Your task to perform on an android device: View the shopping cart on newegg. Add "macbook pro" to the cart on newegg, then select checkout. Image 0: 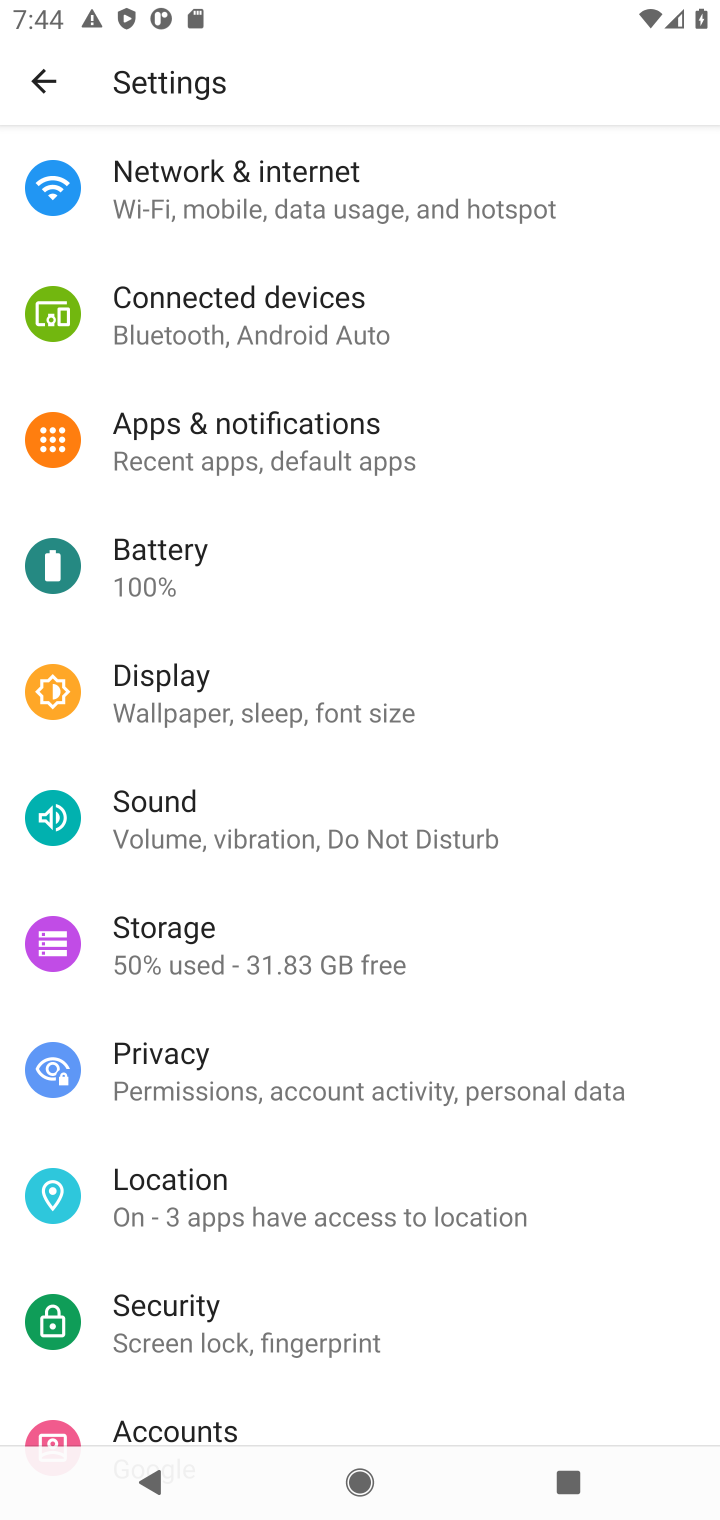
Step 0: press home button
Your task to perform on an android device: View the shopping cart on newegg. Add "macbook pro" to the cart on newegg, then select checkout. Image 1: 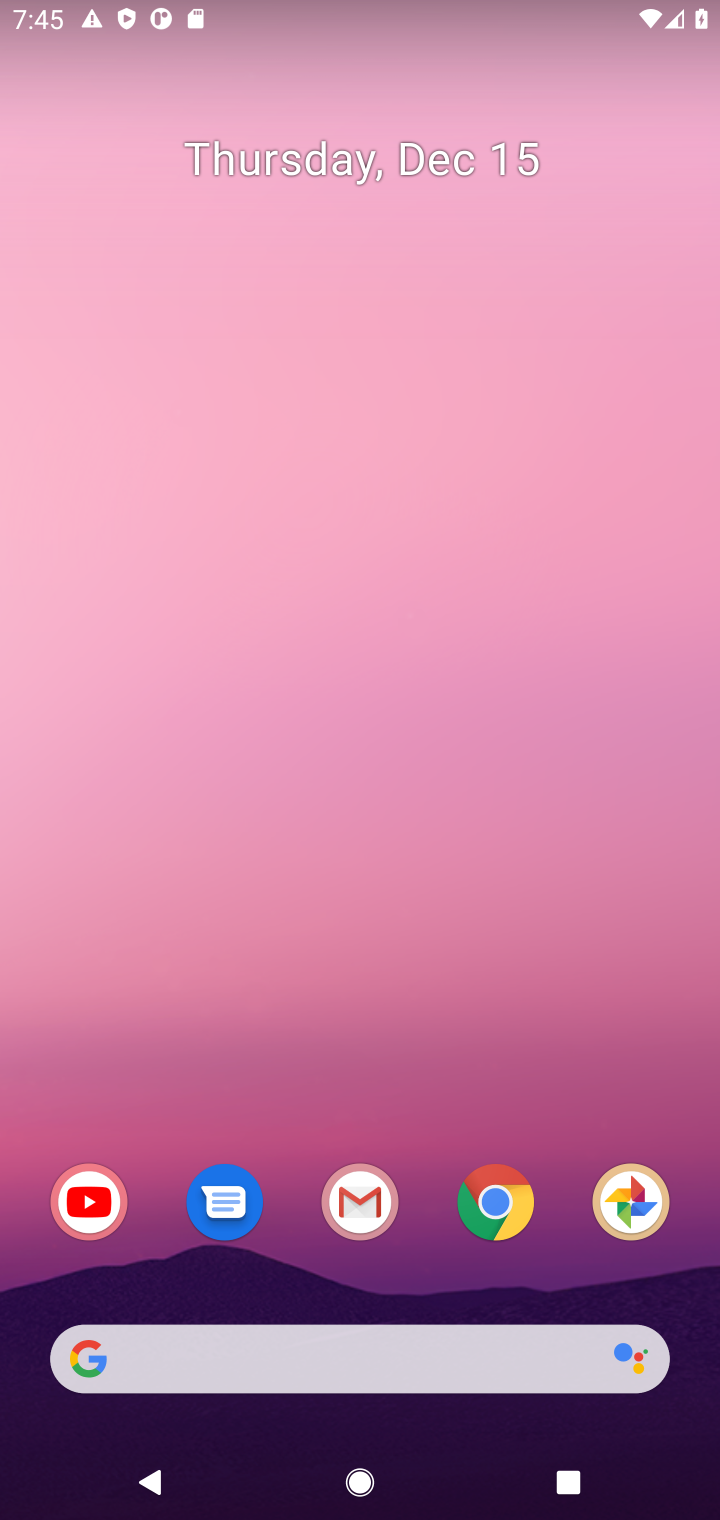
Step 1: click (514, 1212)
Your task to perform on an android device: View the shopping cart on newegg. Add "macbook pro" to the cart on newegg, then select checkout. Image 2: 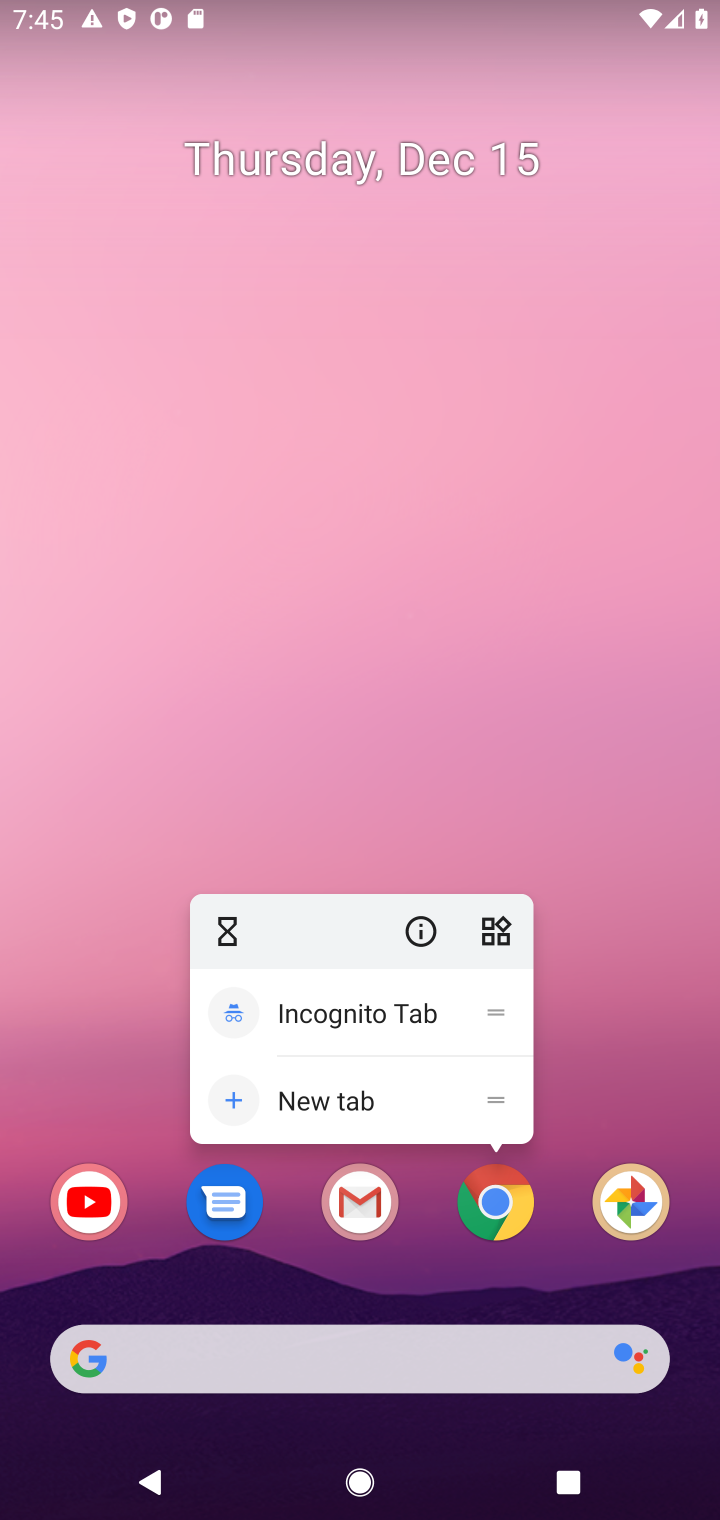
Step 2: click (497, 1200)
Your task to perform on an android device: View the shopping cart on newegg. Add "macbook pro" to the cart on newegg, then select checkout. Image 3: 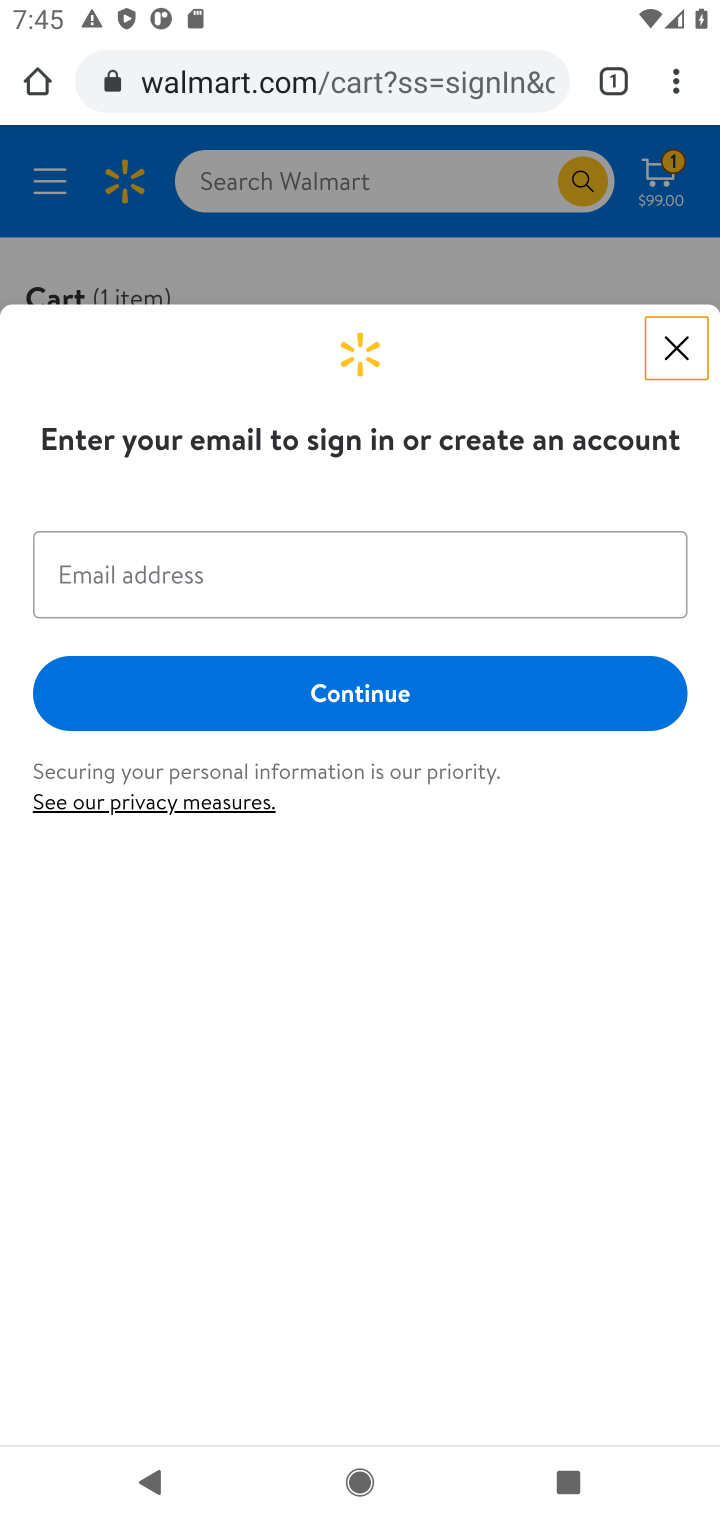
Step 3: click (312, 76)
Your task to perform on an android device: View the shopping cart on newegg. Add "macbook pro" to the cart on newegg, then select checkout. Image 4: 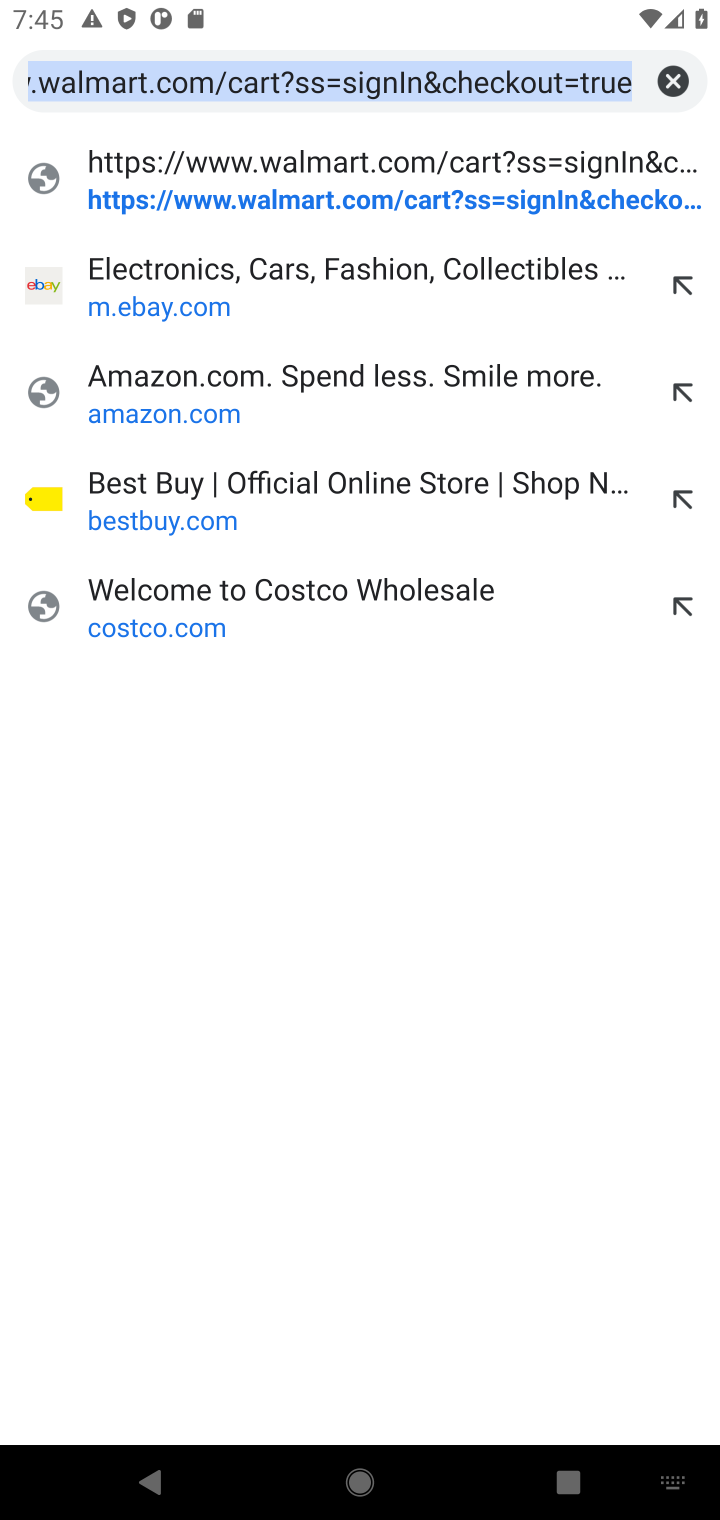
Step 4: type "newegg.com"
Your task to perform on an android device: View the shopping cart on newegg. Add "macbook pro" to the cart on newegg, then select checkout. Image 5: 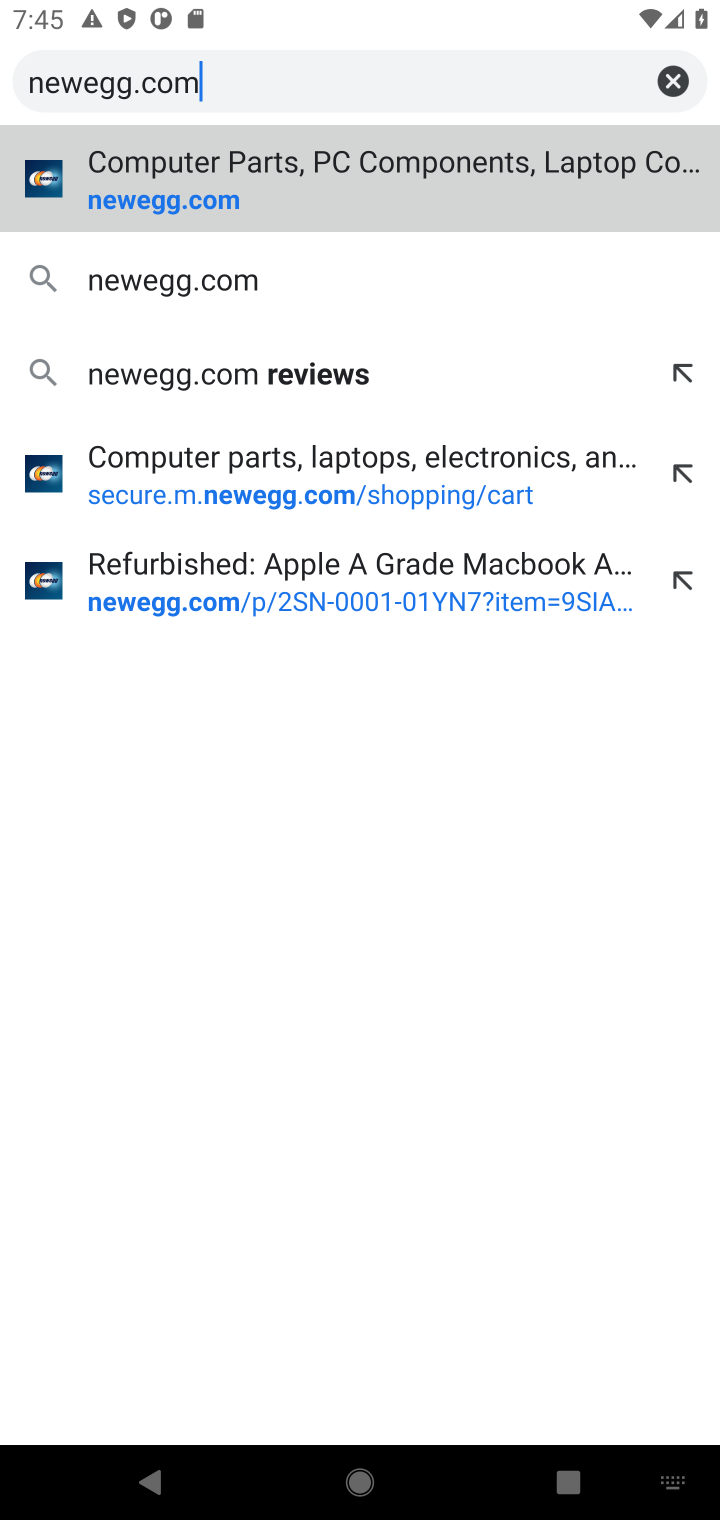
Step 5: click (207, 214)
Your task to perform on an android device: View the shopping cart on newegg. Add "macbook pro" to the cart on newegg, then select checkout. Image 6: 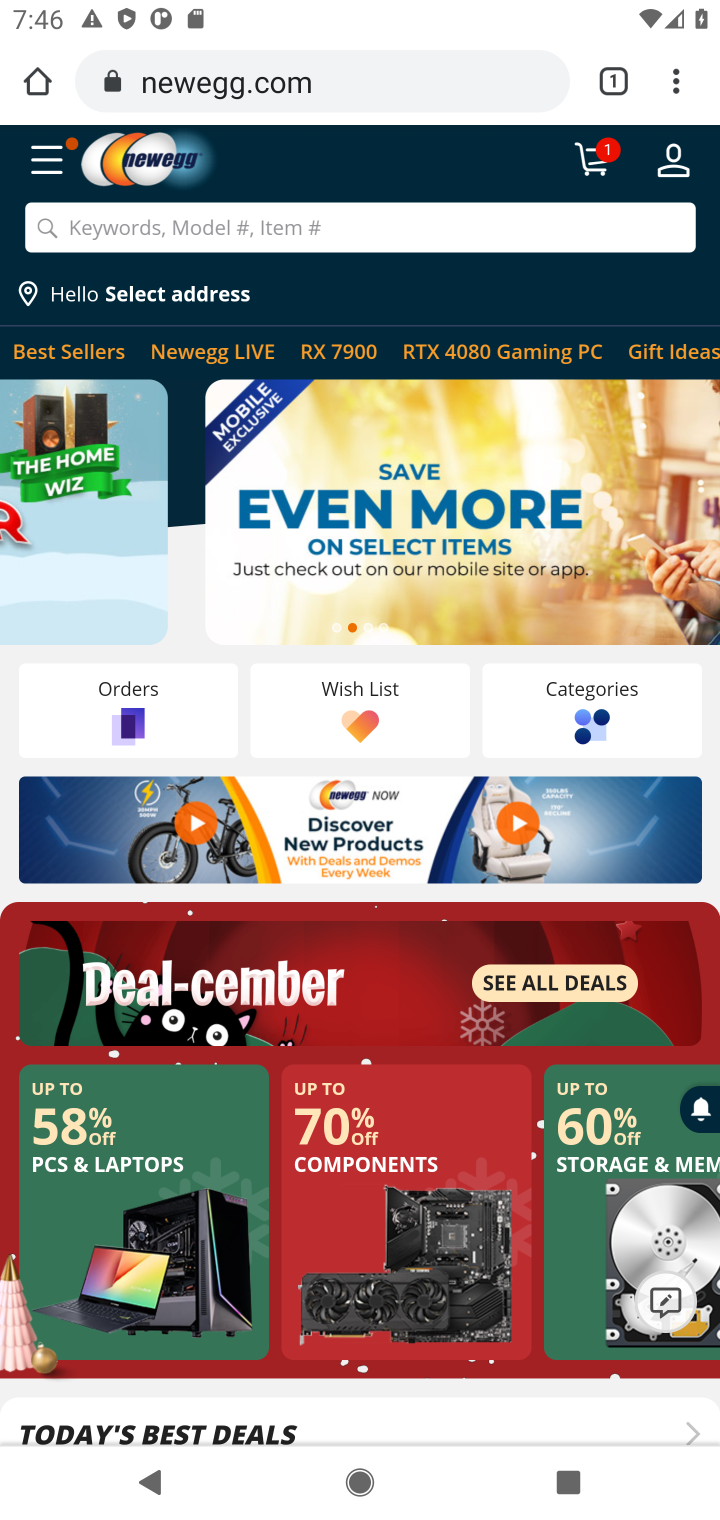
Step 6: click (587, 151)
Your task to perform on an android device: View the shopping cart on newegg. Add "macbook pro" to the cart on newegg, then select checkout. Image 7: 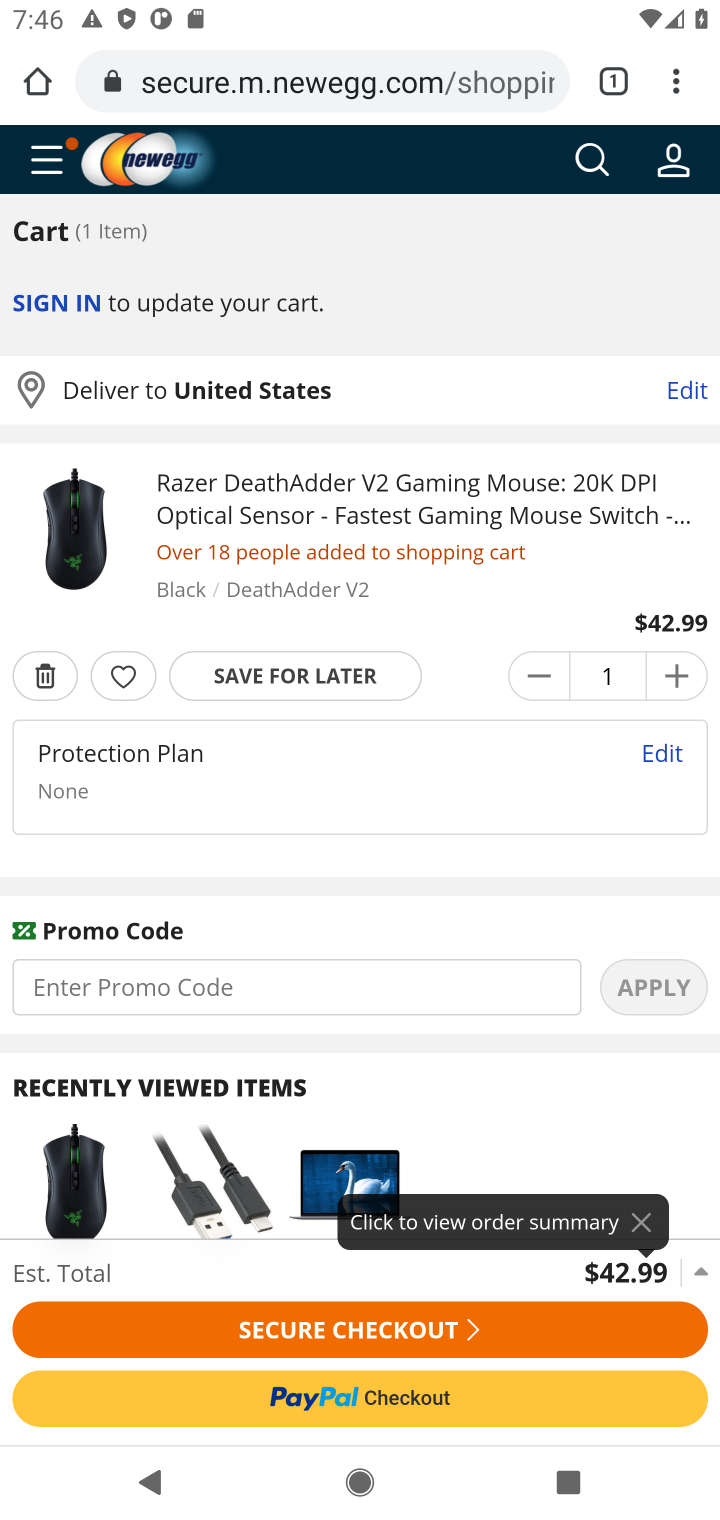
Step 7: click (576, 160)
Your task to perform on an android device: View the shopping cart on newegg. Add "macbook pro" to the cart on newegg, then select checkout. Image 8: 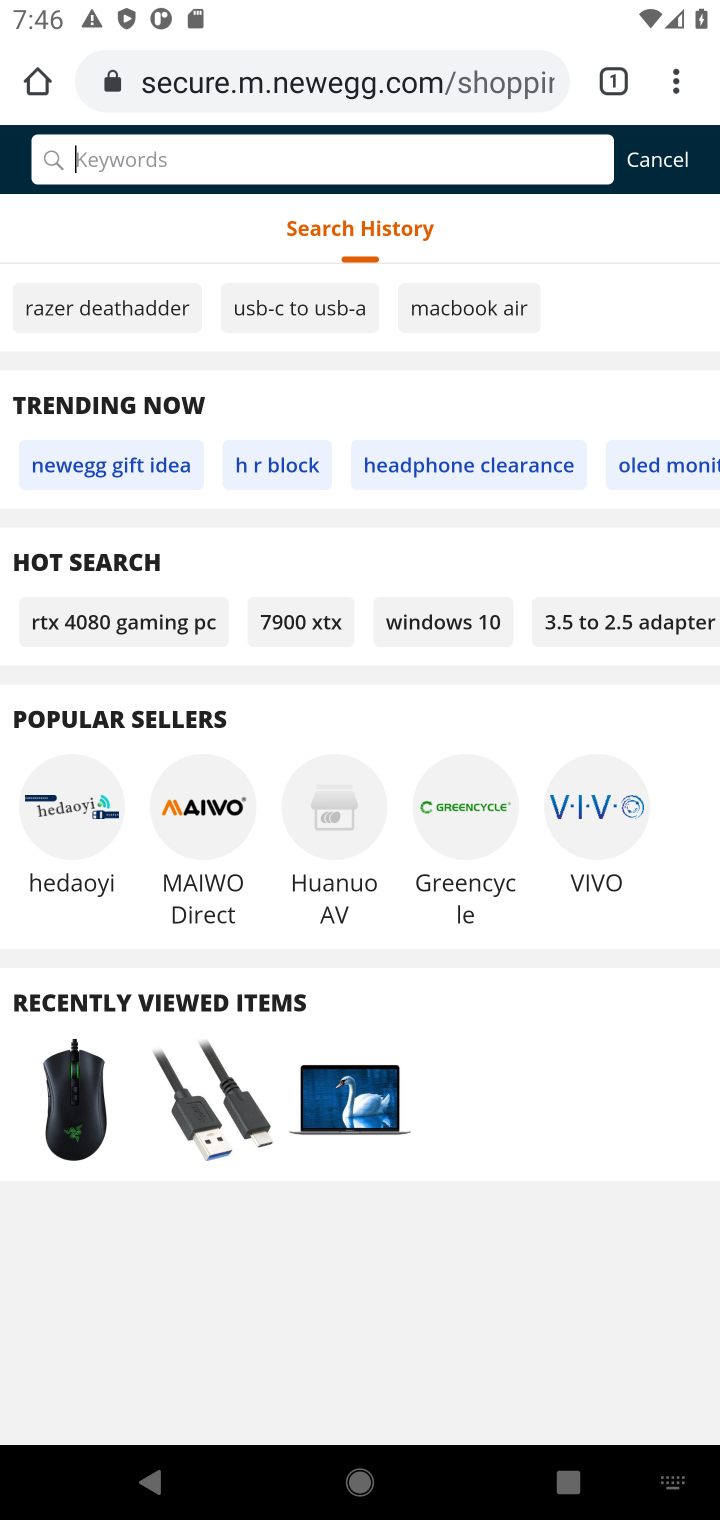
Step 8: type "macbook pro"
Your task to perform on an android device: View the shopping cart on newegg. Add "macbook pro" to the cart on newegg, then select checkout. Image 9: 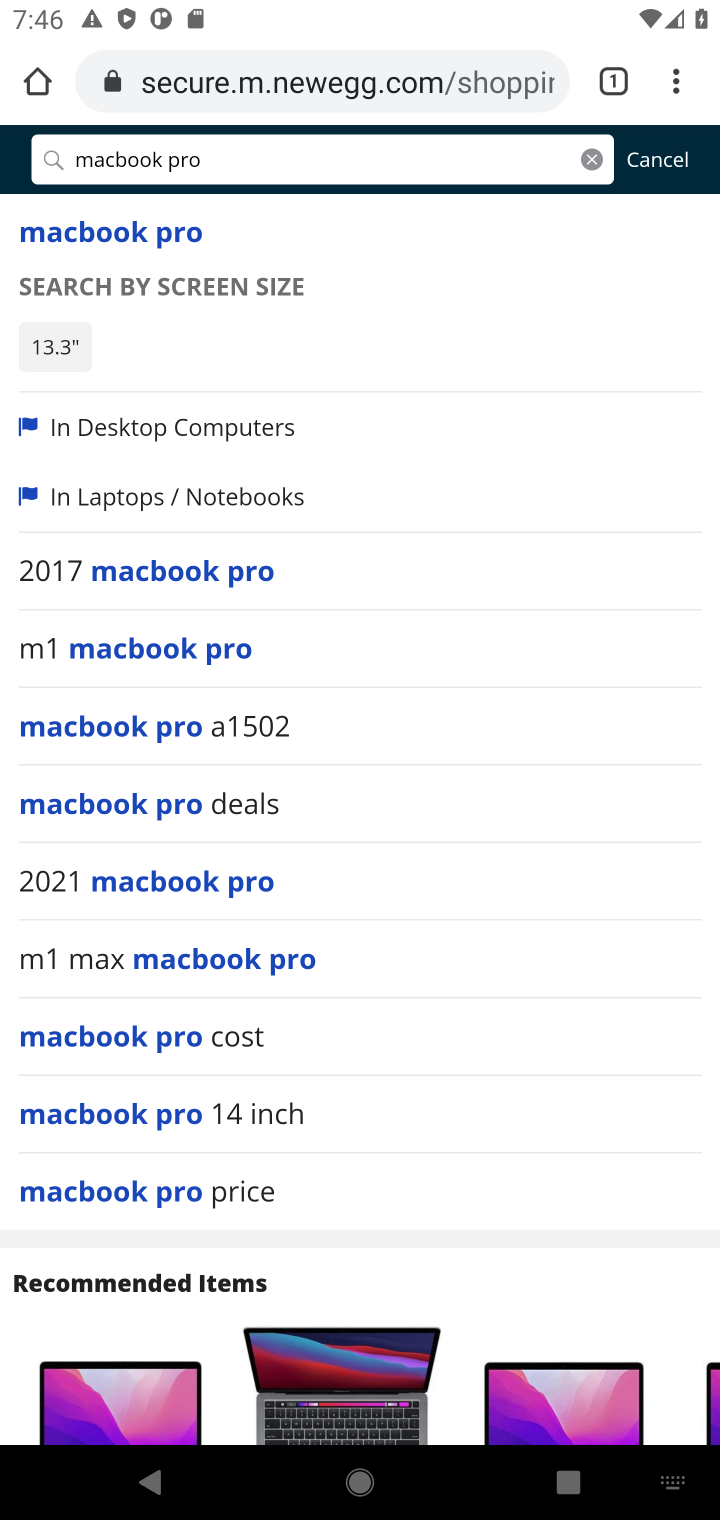
Step 9: click (146, 241)
Your task to perform on an android device: View the shopping cart on newegg. Add "macbook pro" to the cart on newegg, then select checkout. Image 10: 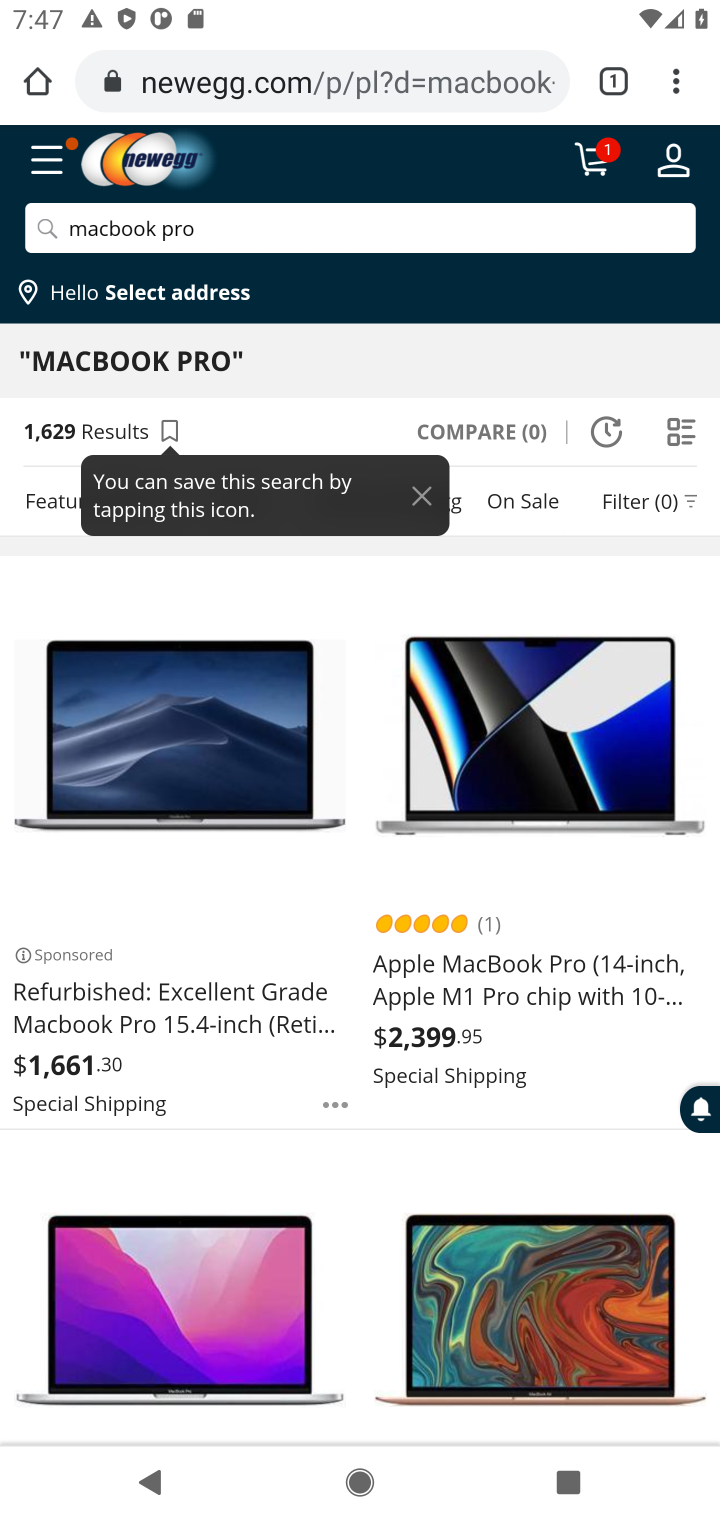
Step 10: click (100, 1000)
Your task to perform on an android device: View the shopping cart on newegg. Add "macbook pro" to the cart on newegg, then select checkout. Image 11: 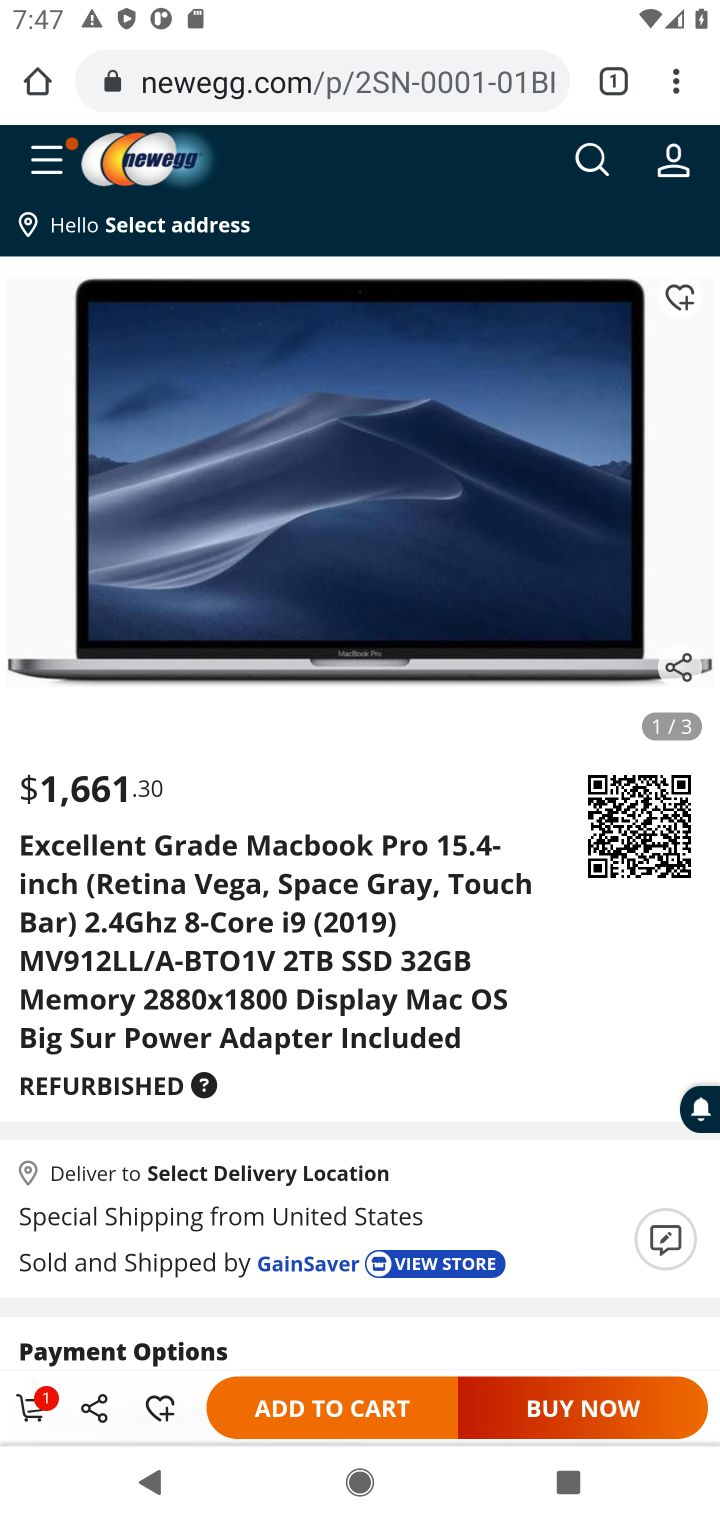
Step 11: click (301, 1399)
Your task to perform on an android device: View the shopping cart on newegg. Add "macbook pro" to the cart on newegg, then select checkout. Image 12: 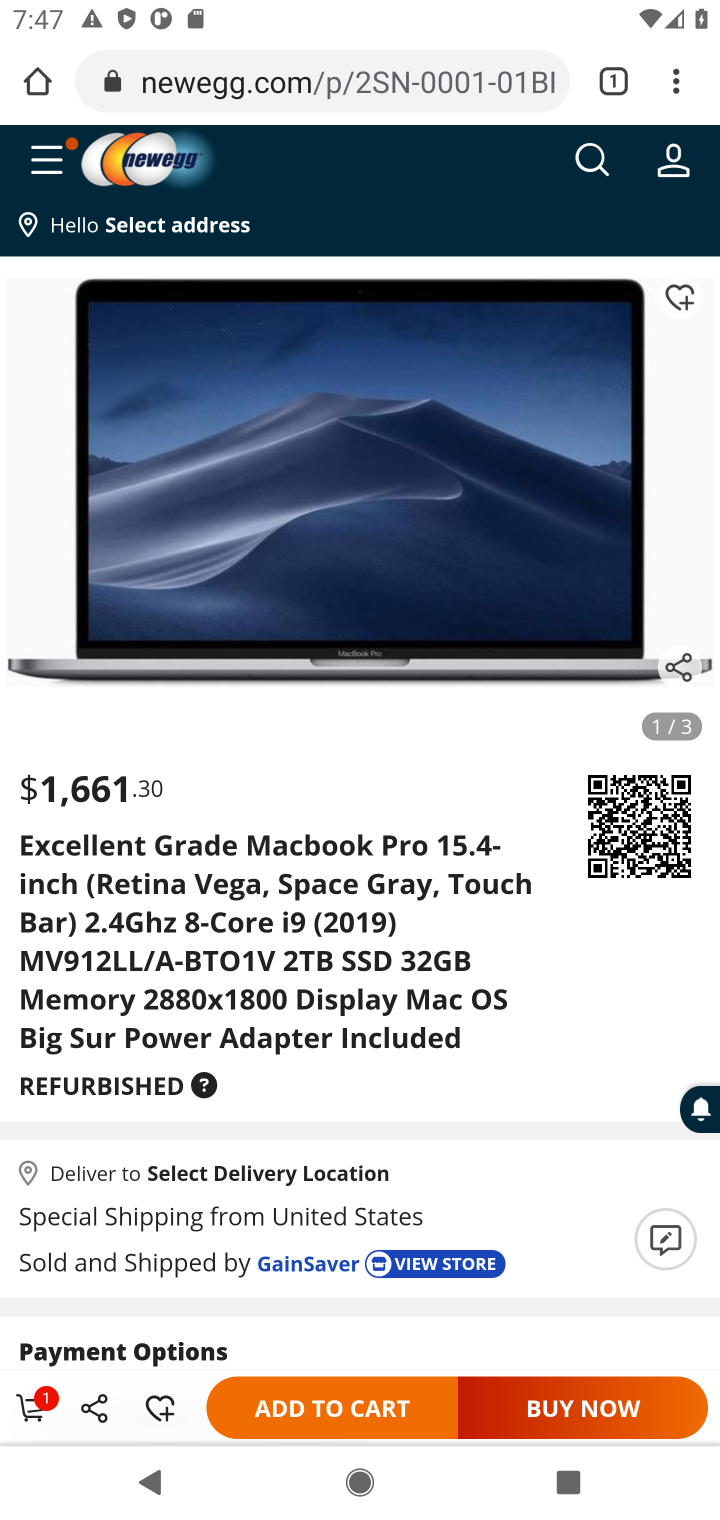
Step 12: click (312, 1409)
Your task to perform on an android device: View the shopping cart on newegg. Add "macbook pro" to the cart on newegg, then select checkout. Image 13: 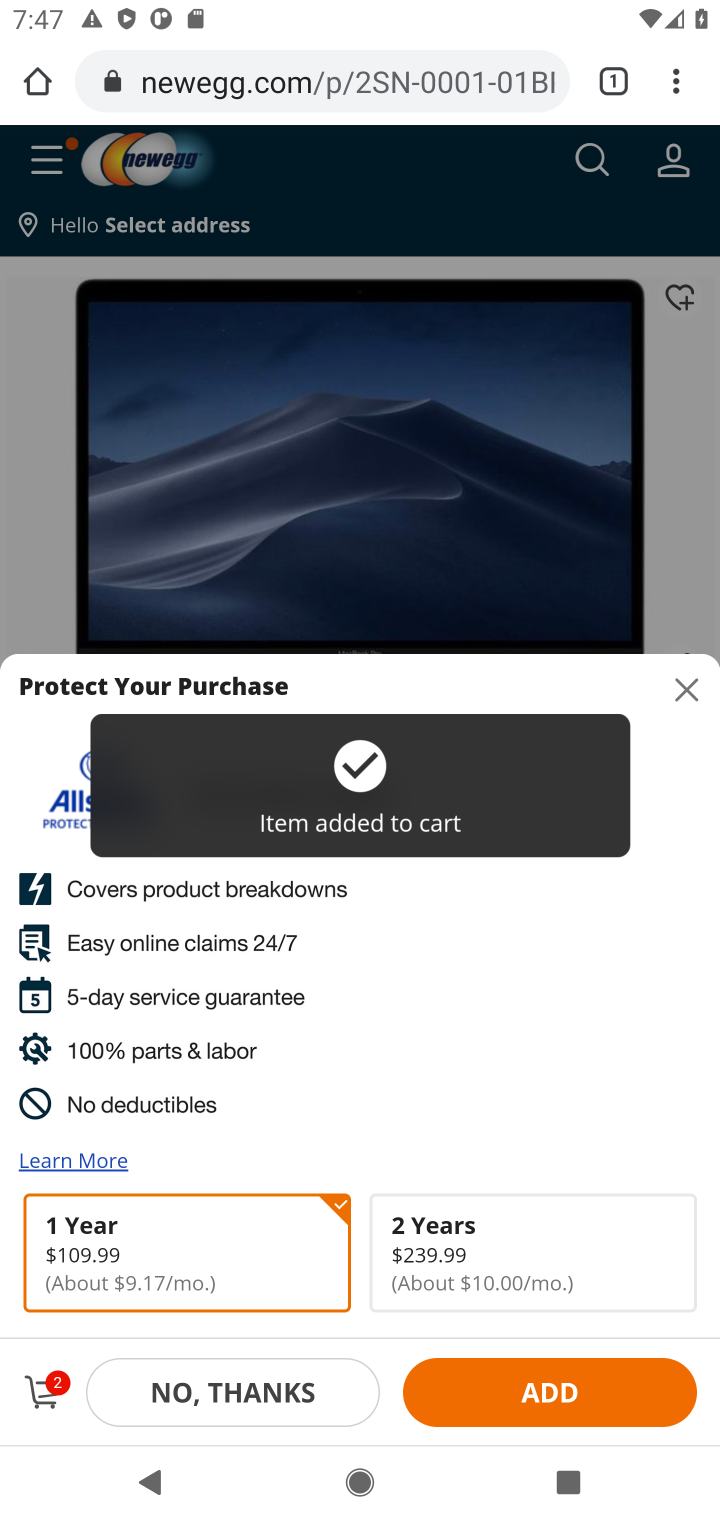
Step 13: click (45, 1407)
Your task to perform on an android device: View the shopping cart on newegg. Add "macbook pro" to the cart on newegg, then select checkout. Image 14: 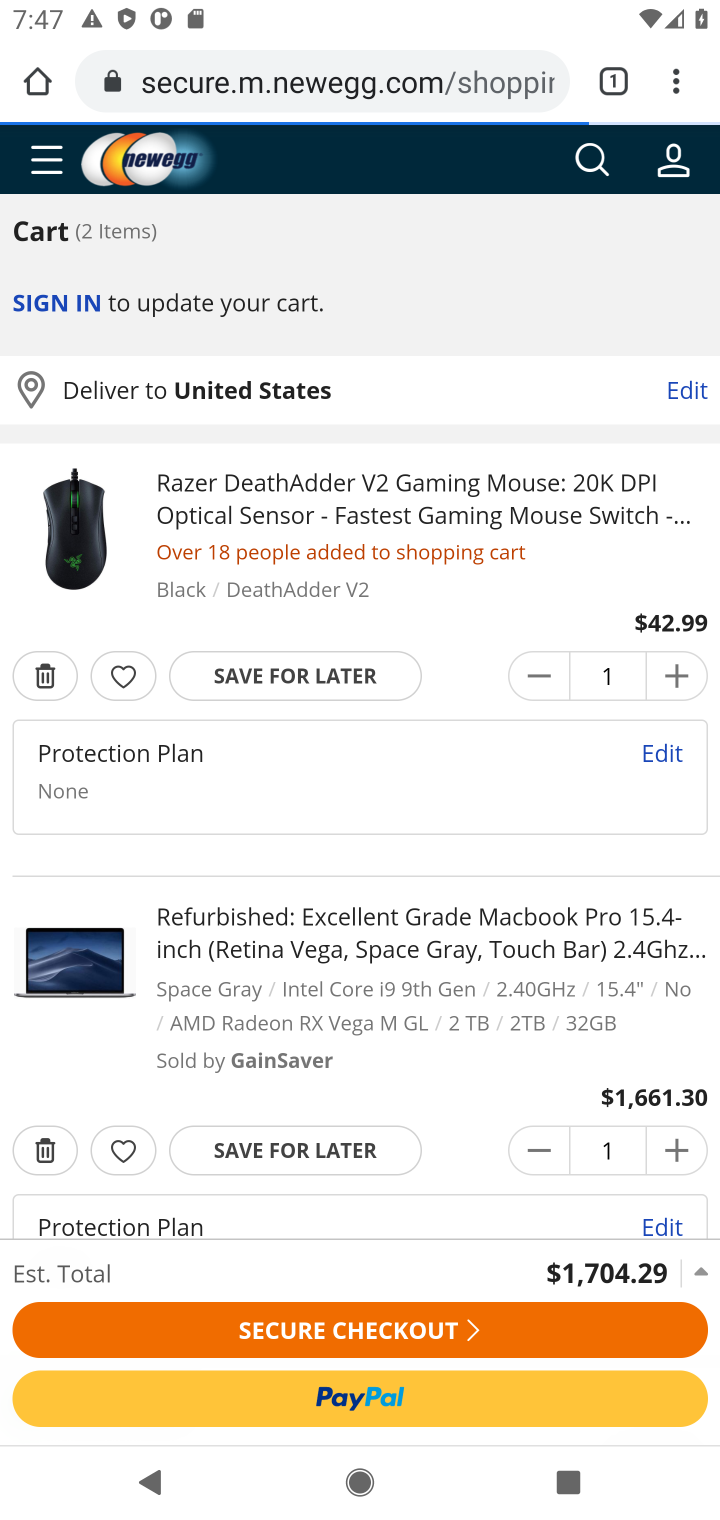
Step 14: click (219, 1381)
Your task to perform on an android device: View the shopping cart on newegg. Add "macbook pro" to the cart on newegg, then select checkout. Image 15: 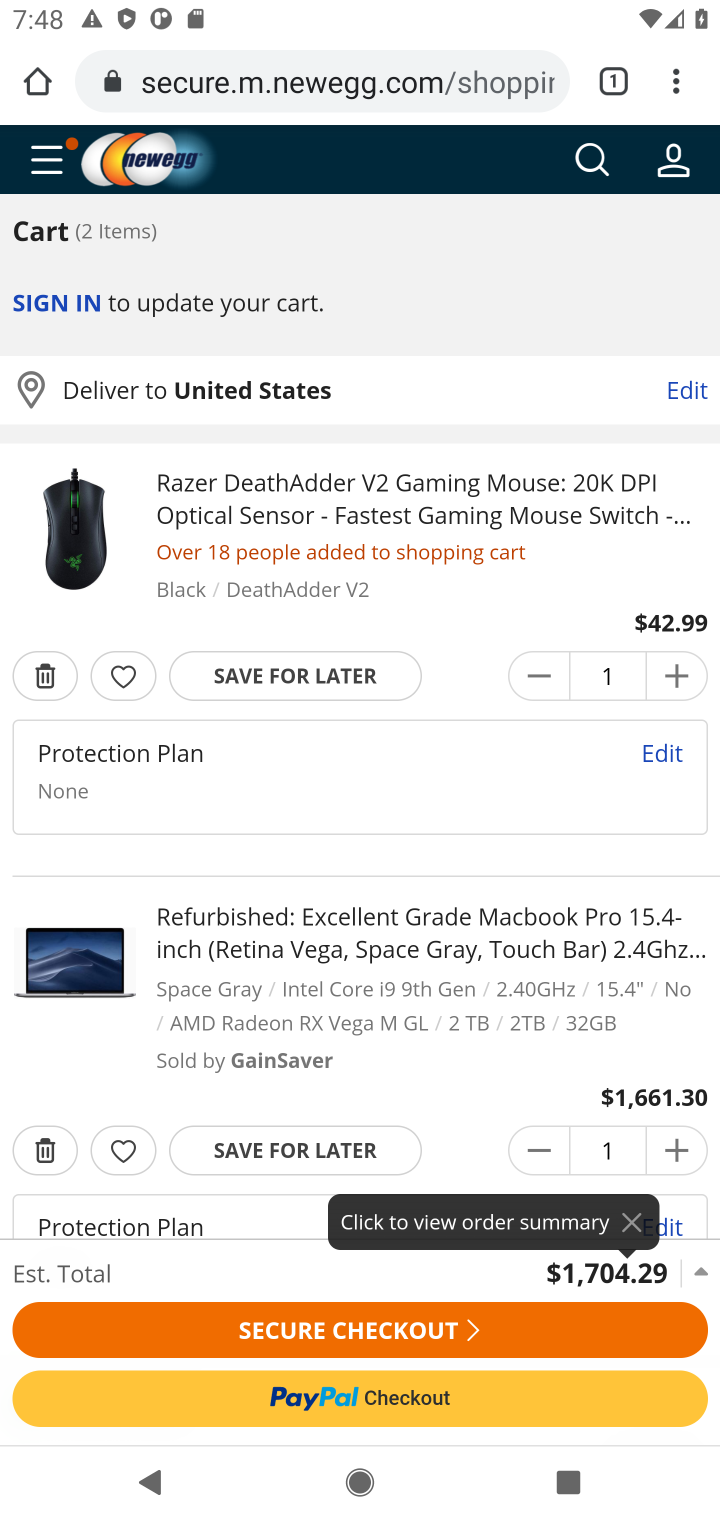
Step 15: click (353, 1330)
Your task to perform on an android device: View the shopping cart on newegg. Add "macbook pro" to the cart on newegg, then select checkout. Image 16: 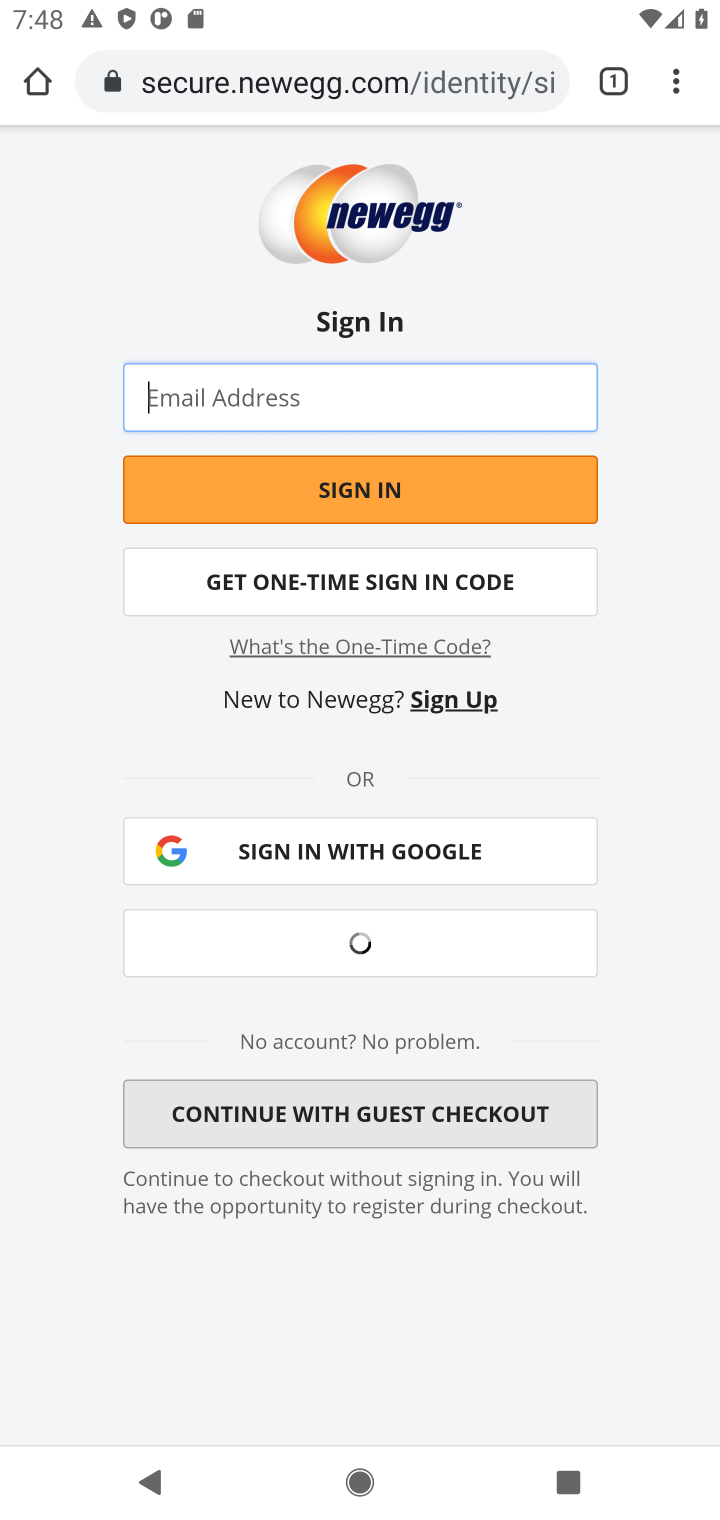
Step 16: task complete